Your task to perform on an android device: Open settings Image 0: 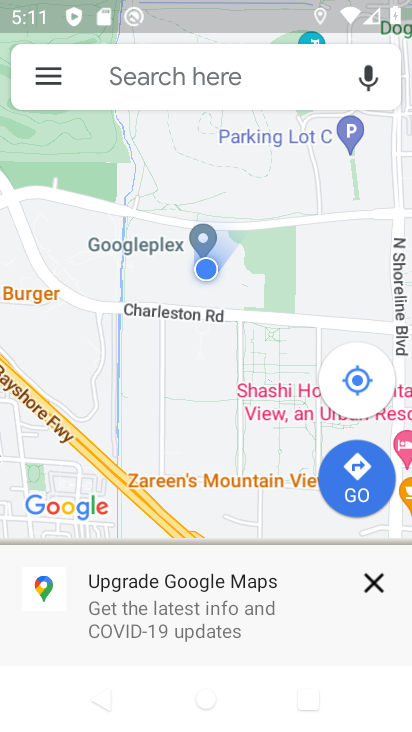
Step 0: press home button
Your task to perform on an android device: Open settings Image 1: 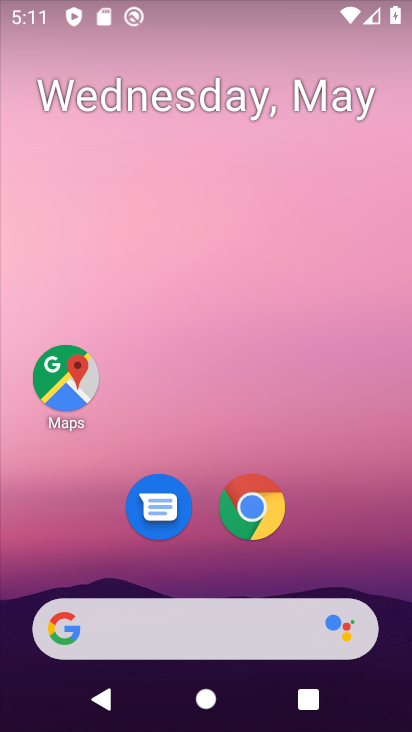
Step 1: drag from (342, 544) to (255, 50)
Your task to perform on an android device: Open settings Image 2: 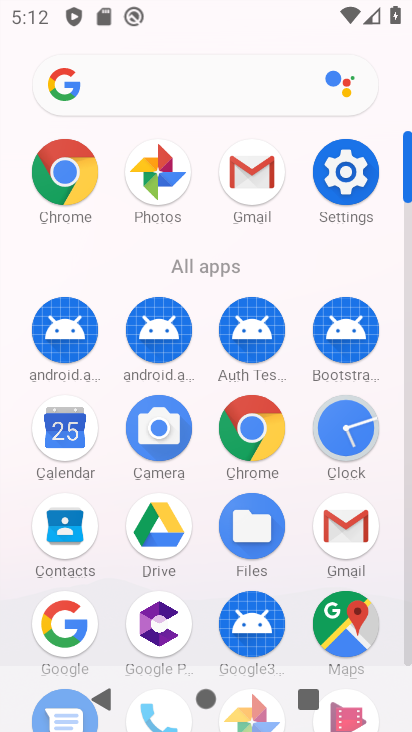
Step 2: click (348, 172)
Your task to perform on an android device: Open settings Image 3: 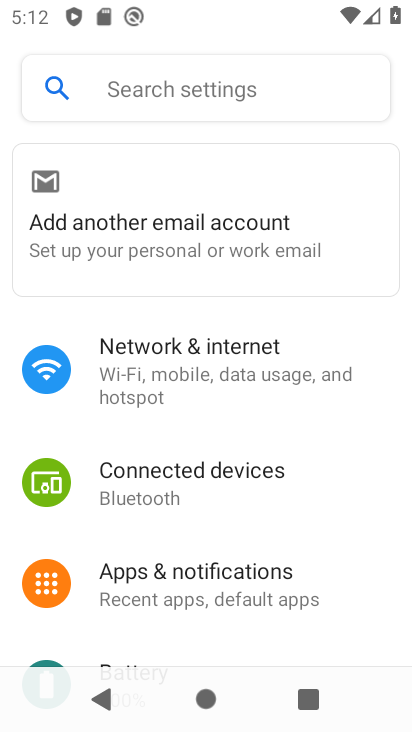
Step 3: task complete